Your task to perform on an android device: Search for a custom made wallet on Etsy Image 0: 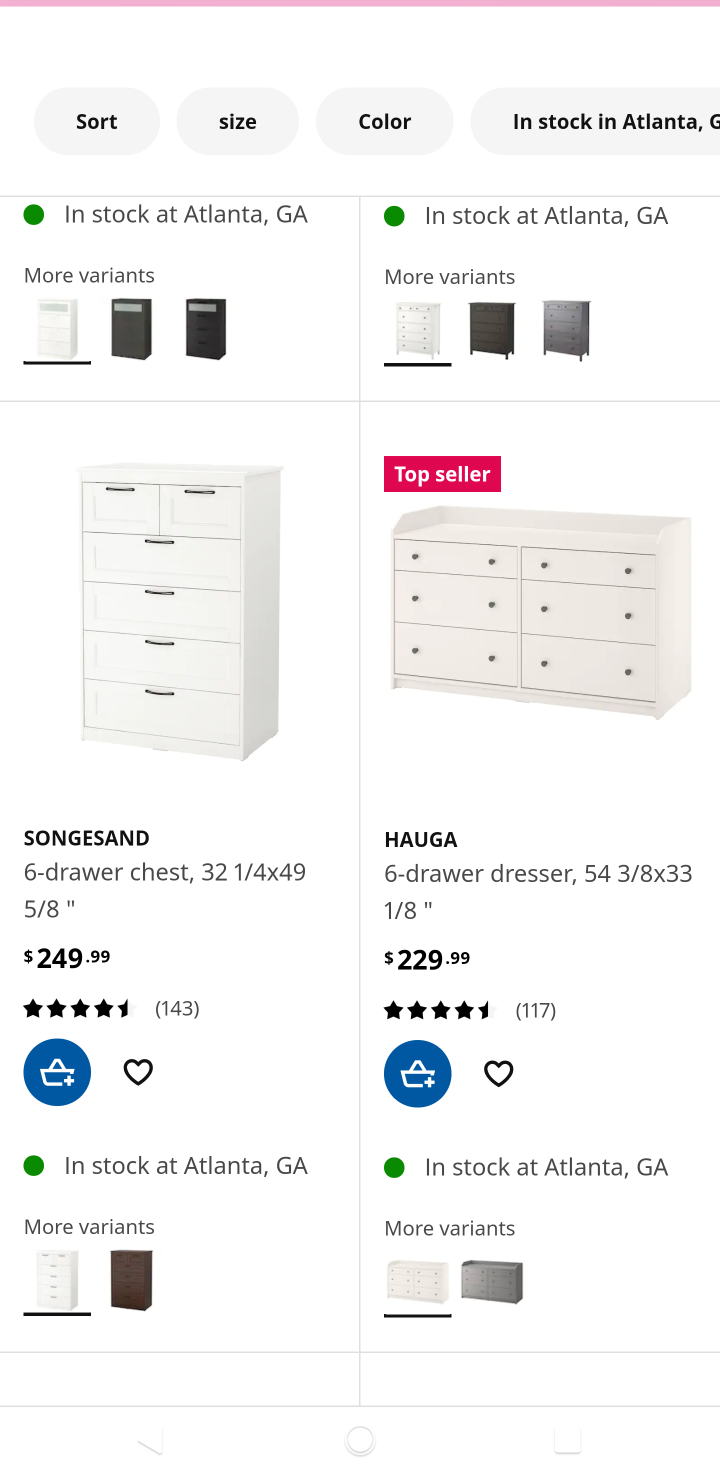
Step 0: press home button
Your task to perform on an android device: Search for a custom made wallet on Etsy Image 1: 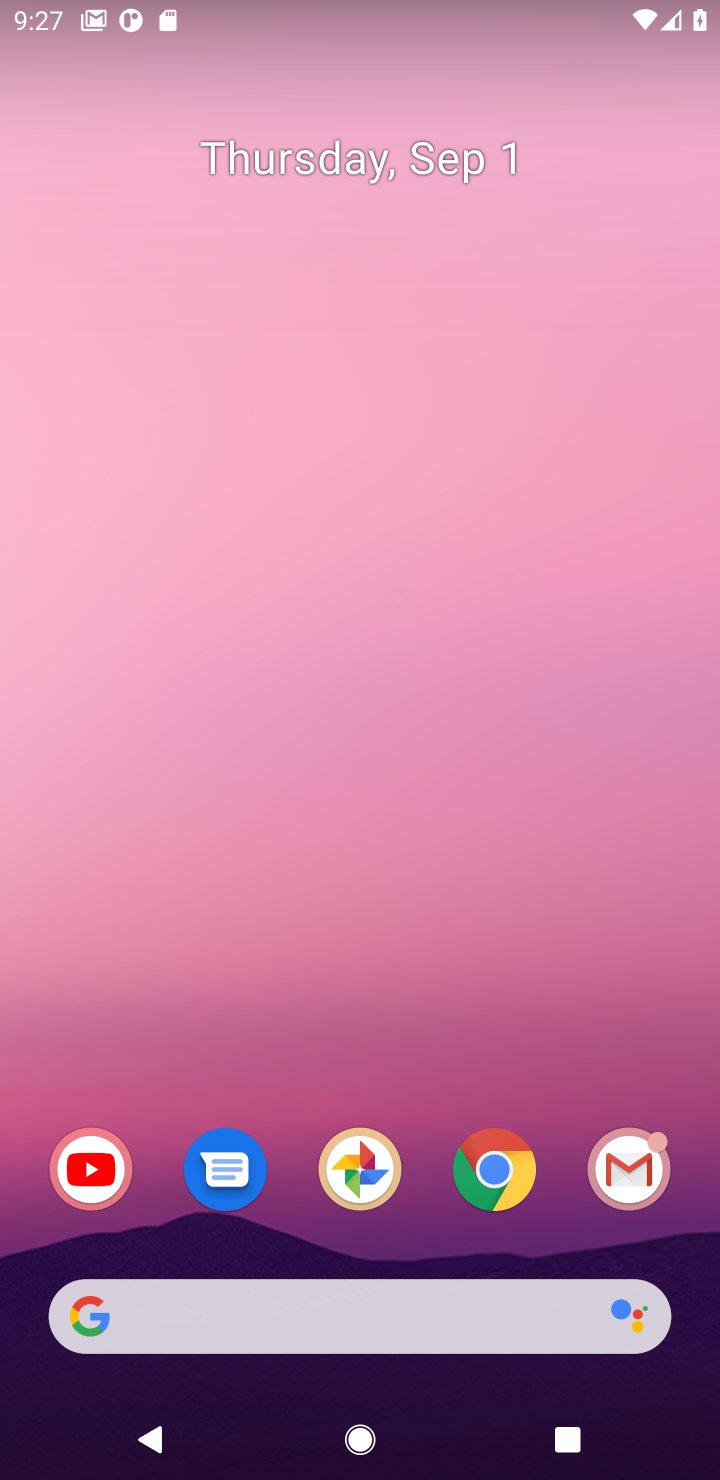
Step 1: drag from (437, 1056) to (453, 68)
Your task to perform on an android device: Search for a custom made wallet on Etsy Image 2: 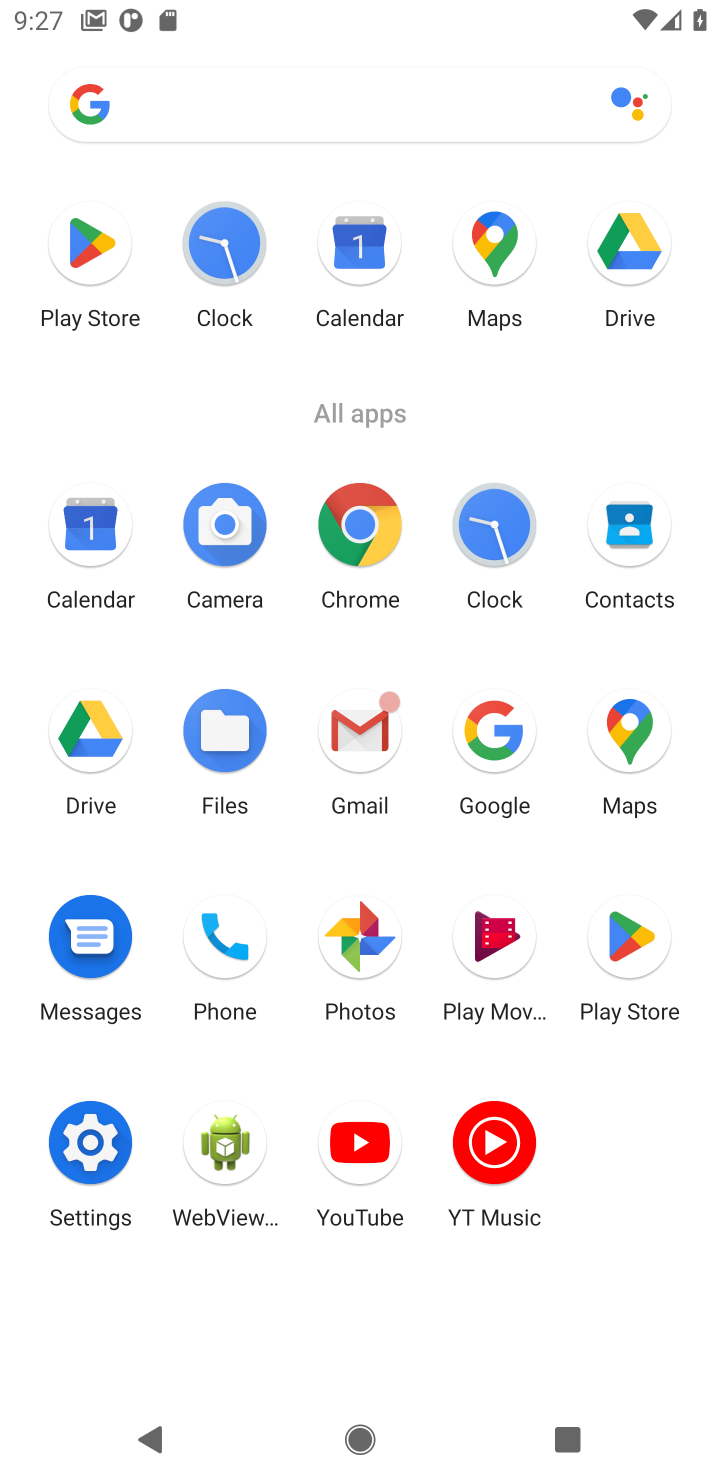
Step 2: click (359, 509)
Your task to perform on an android device: Search for a custom made wallet on Etsy Image 3: 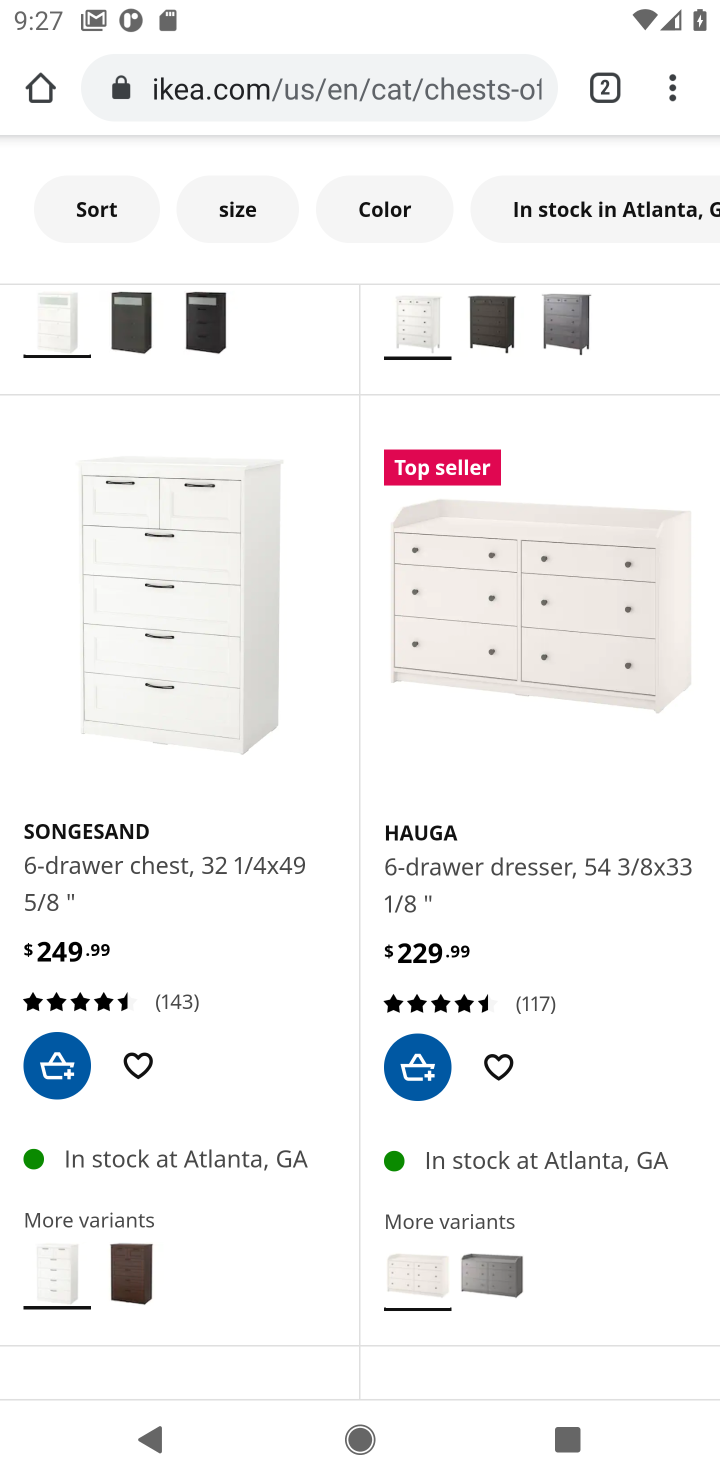
Step 3: click (284, 73)
Your task to perform on an android device: Search for a custom made wallet on Etsy Image 4: 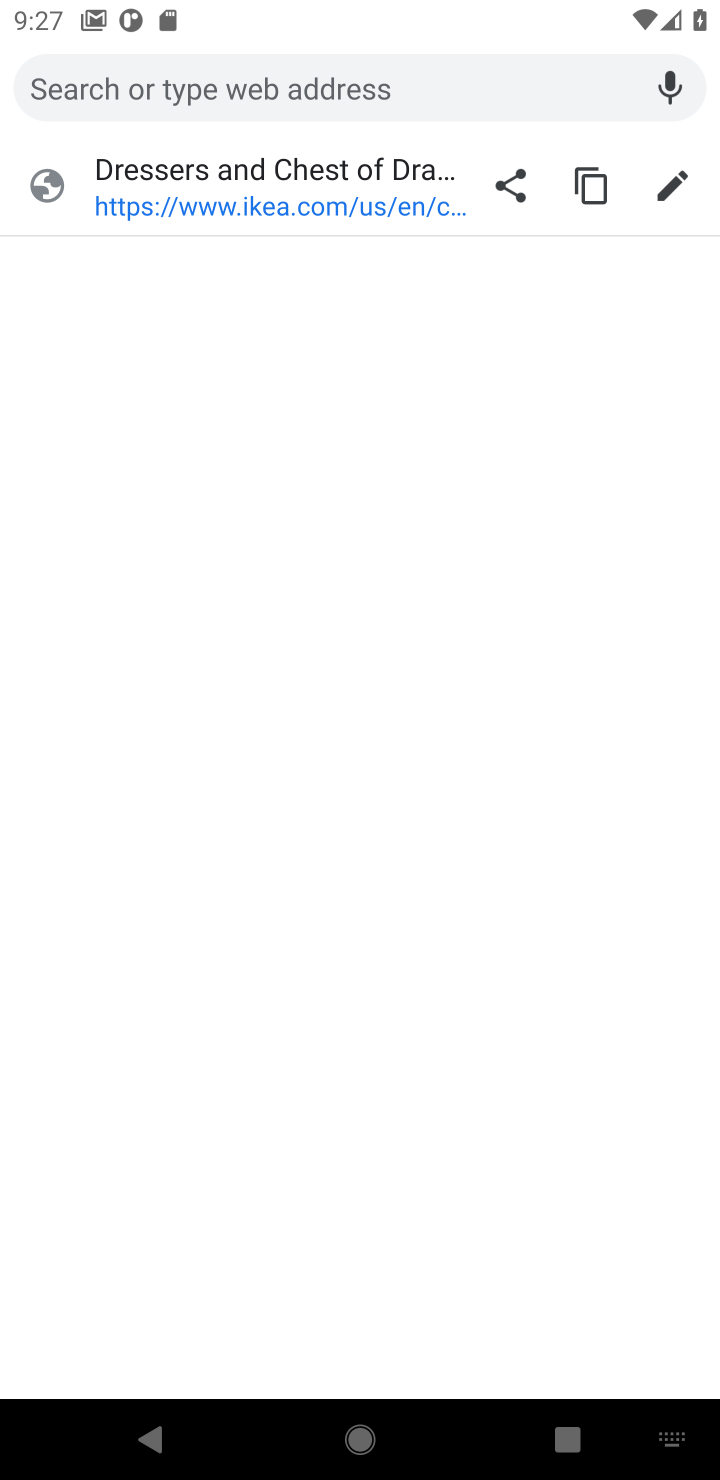
Step 4: type "a custom made wallet on Etsy"
Your task to perform on an android device: Search for a custom made wallet on Etsy Image 5: 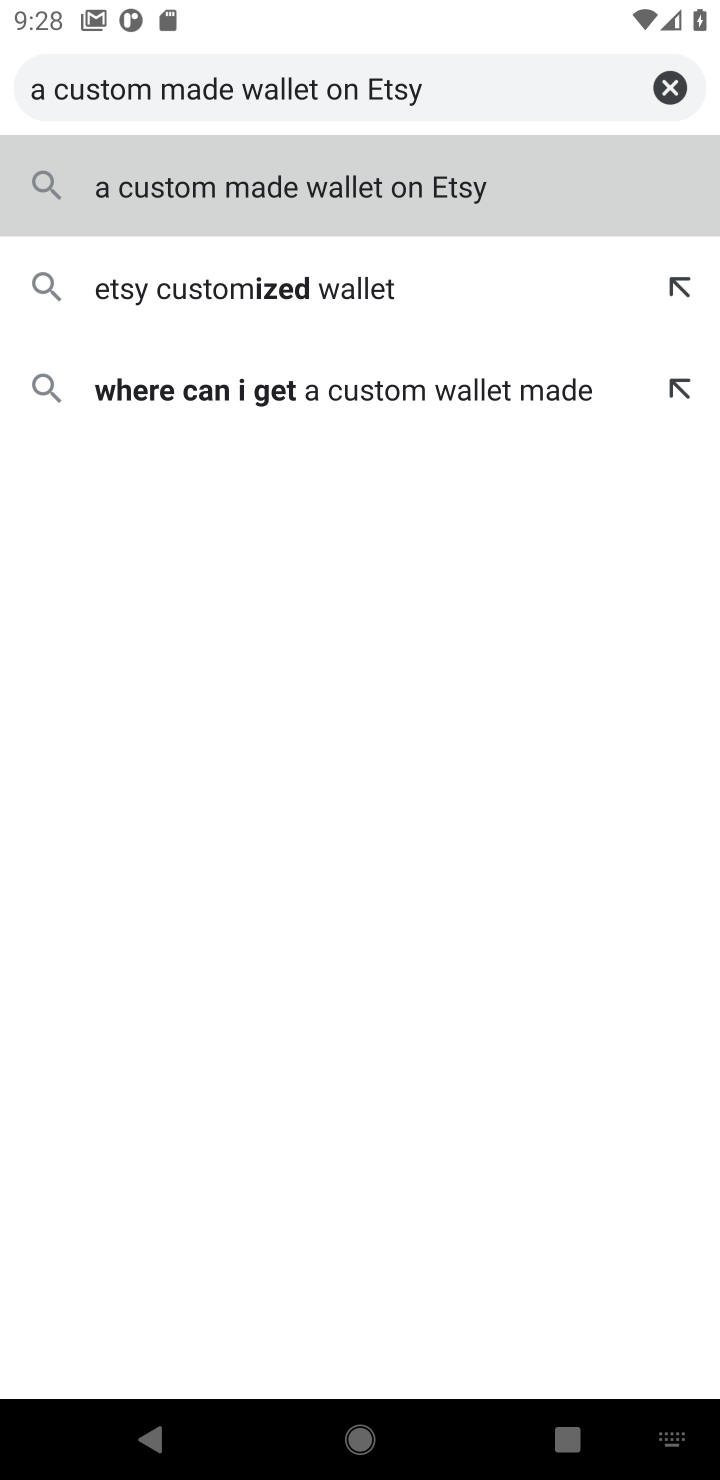
Step 5: click (186, 200)
Your task to perform on an android device: Search for a custom made wallet on Etsy Image 6: 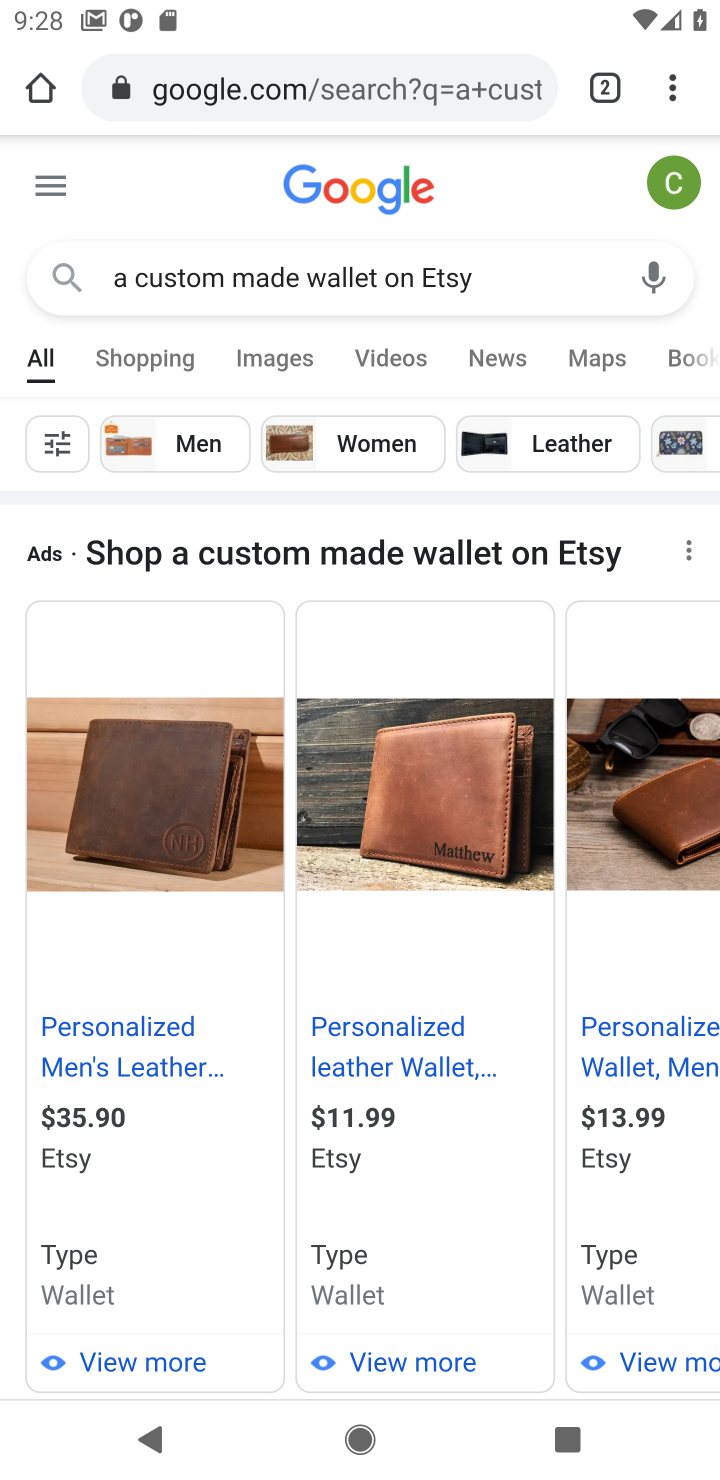
Step 6: drag from (291, 1351) to (264, 504)
Your task to perform on an android device: Search for a custom made wallet on Etsy Image 7: 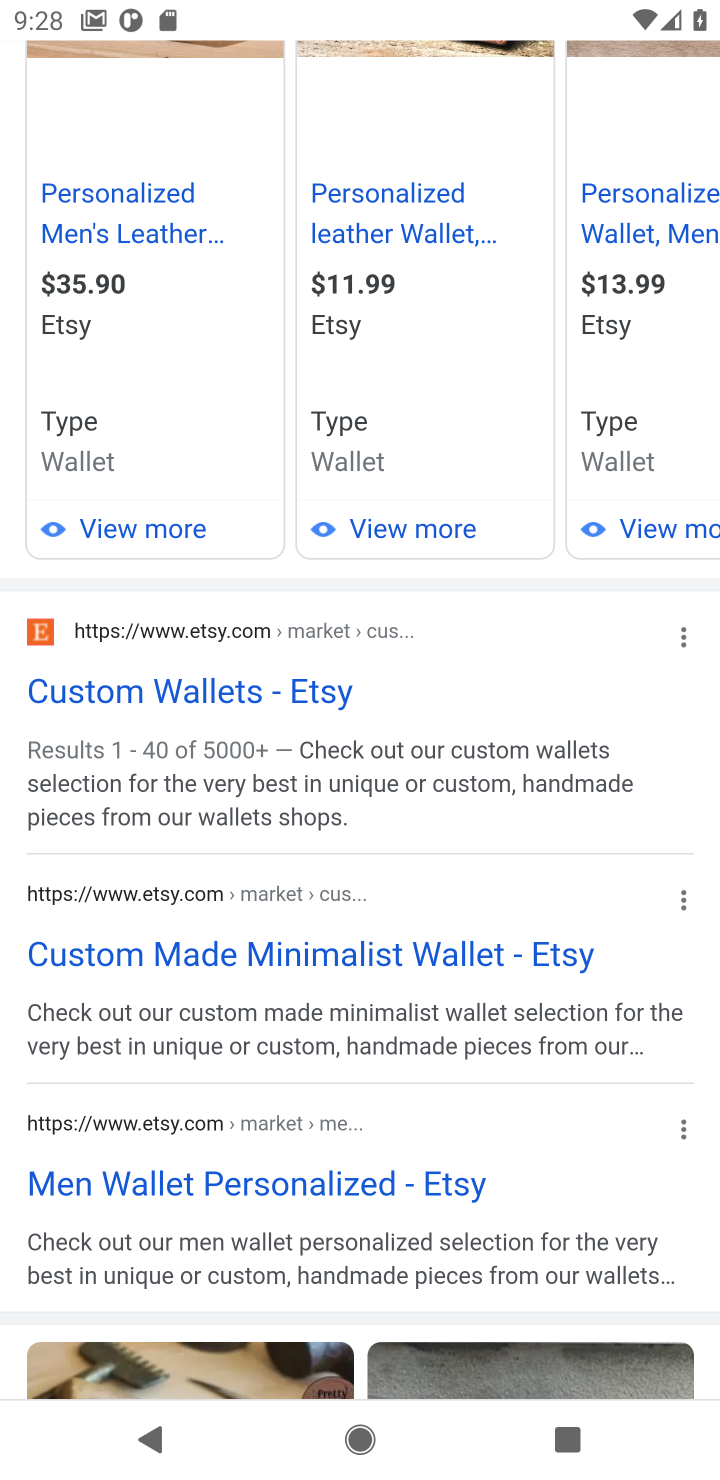
Step 7: click (259, 965)
Your task to perform on an android device: Search for a custom made wallet on Etsy Image 8: 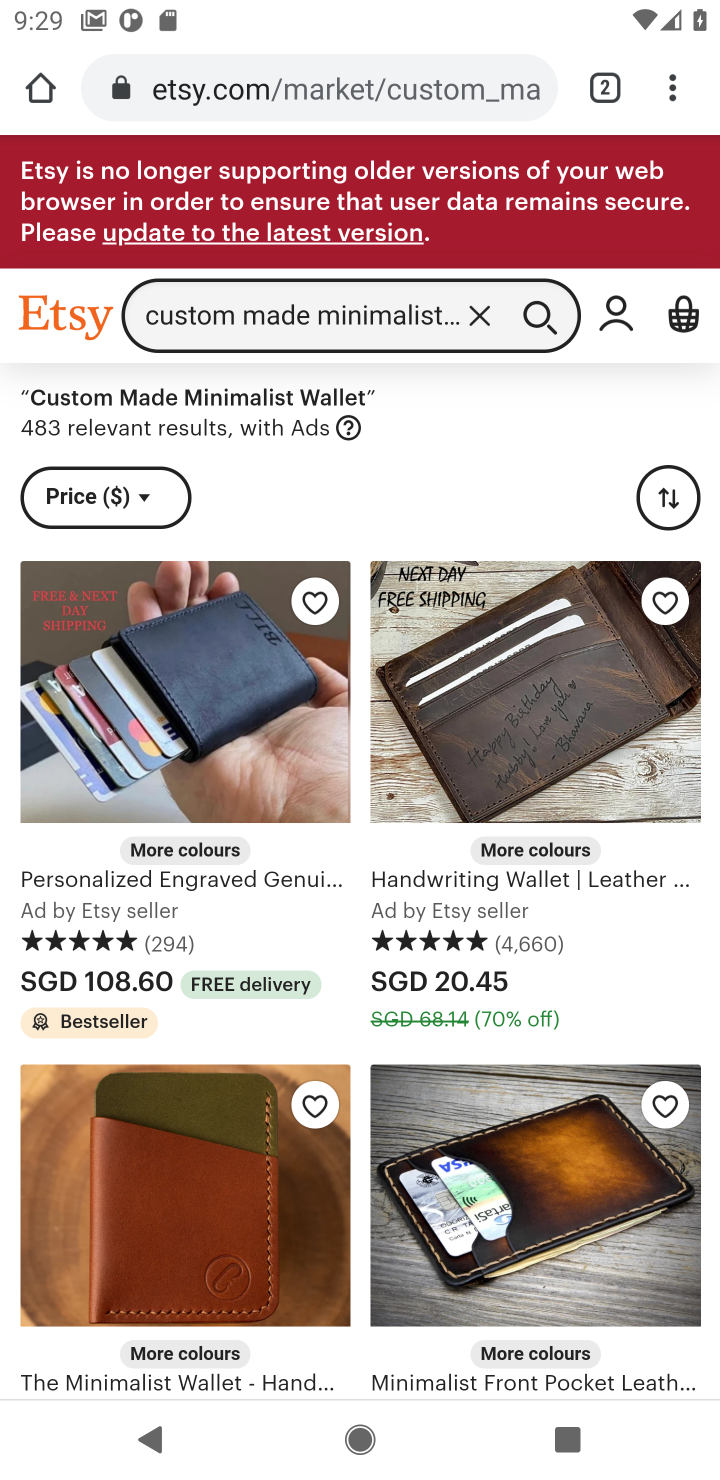
Step 8: drag from (386, 804) to (442, 298)
Your task to perform on an android device: Search for a custom made wallet on Etsy Image 9: 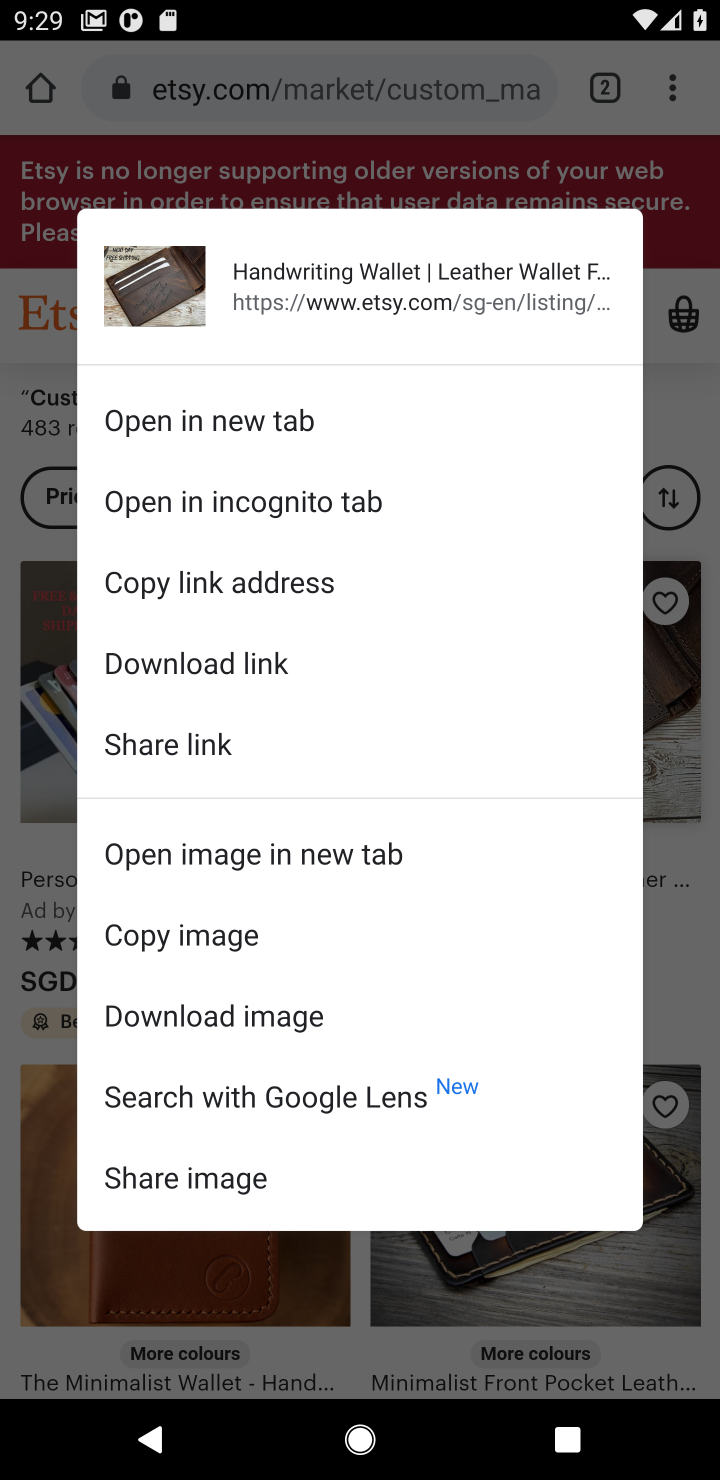
Step 9: click (694, 379)
Your task to perform on an android device: Search for a custom made wallet on Etsy Image 10: 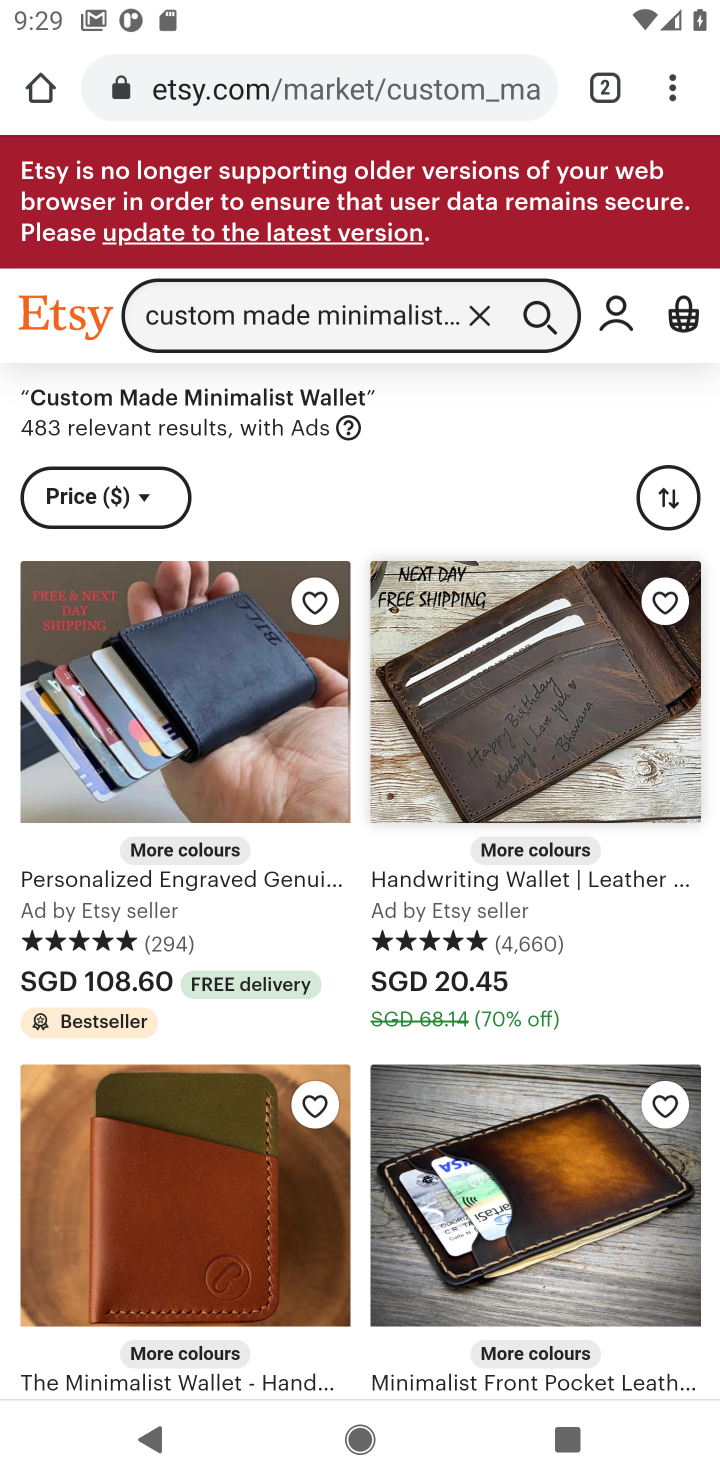
Step 10: drag from (365, 525) to (386, 255)
Your task to perform on an android device: Search for a custom made wallet on Etsy Image 11: 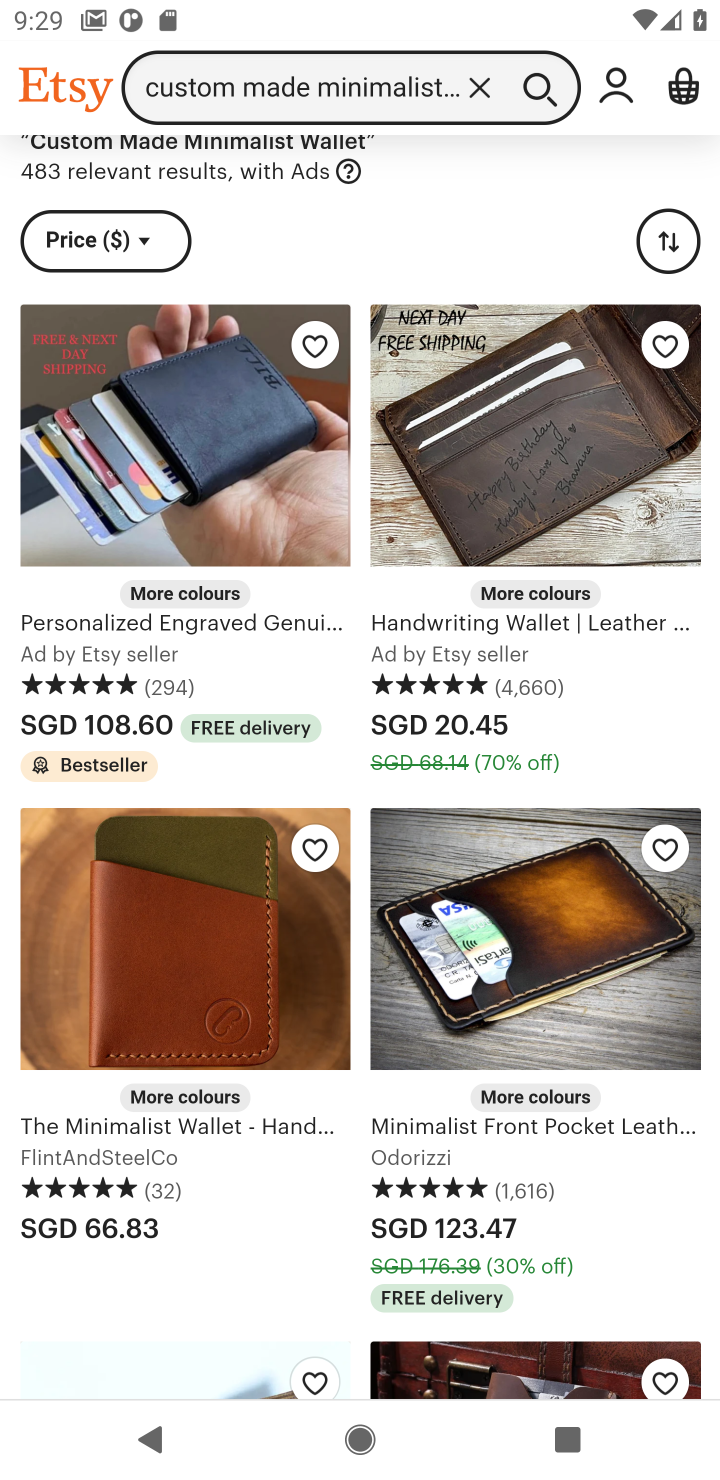
Step 11: click (401, 409)
Your task to perform on an android device: Search for a custom made wallet on Etsy Image 12: 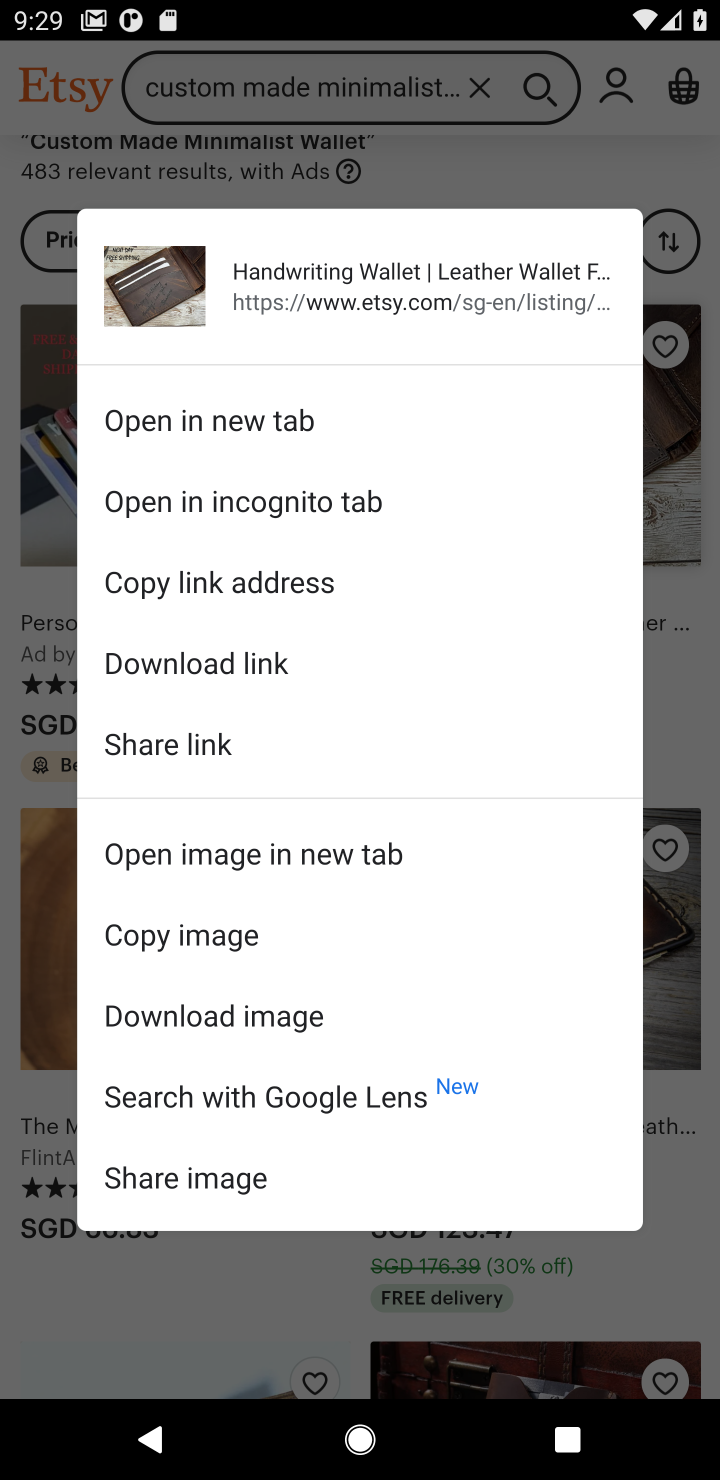
Step 12: click (428, 1345)
Your task to perform on an android device: Search for a custom made wallet on Etsy Image 13: 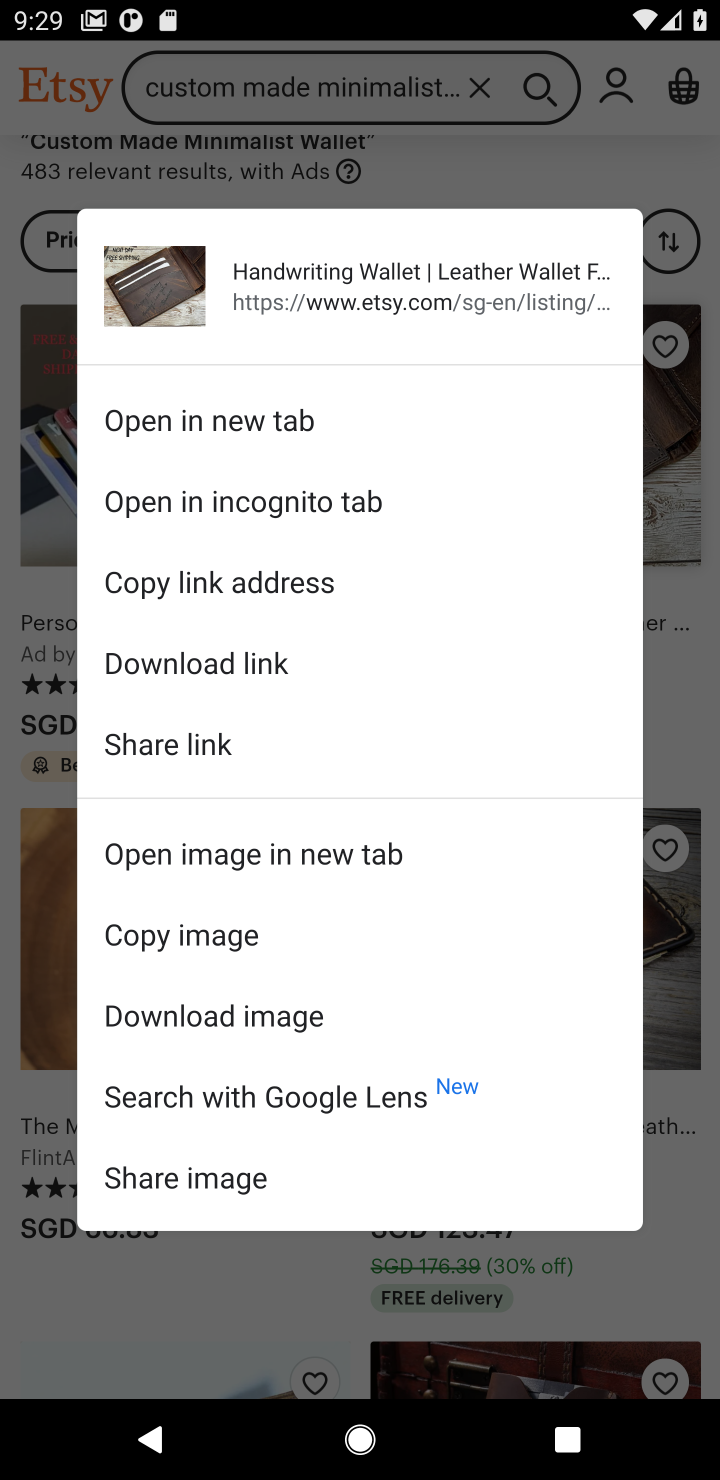
Step 13: task complete